Your task to perform on an android device: check battery use Image 0: 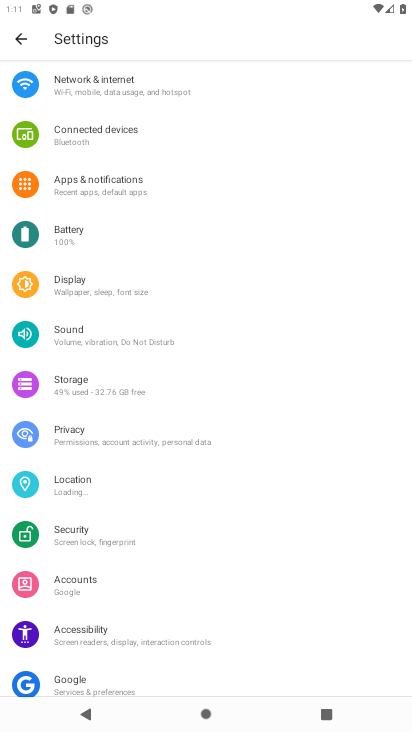
Step 0: press home button
Your task to perform on an android device: check battery use Image 1: 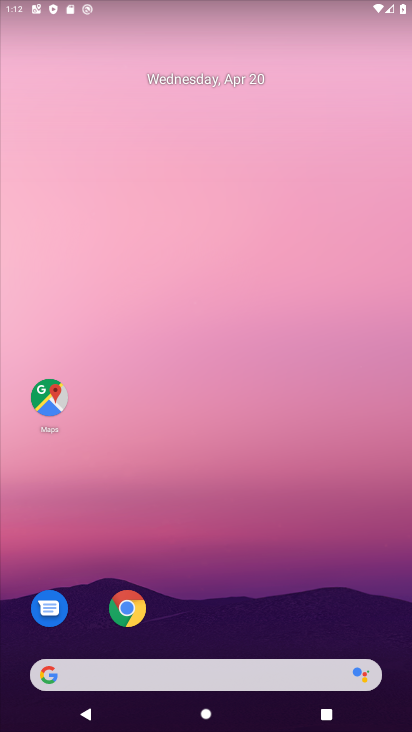
Step 1: drag from (212, 719) to (213, 140)
Your task to perform on an android device: check battery use Image 2: 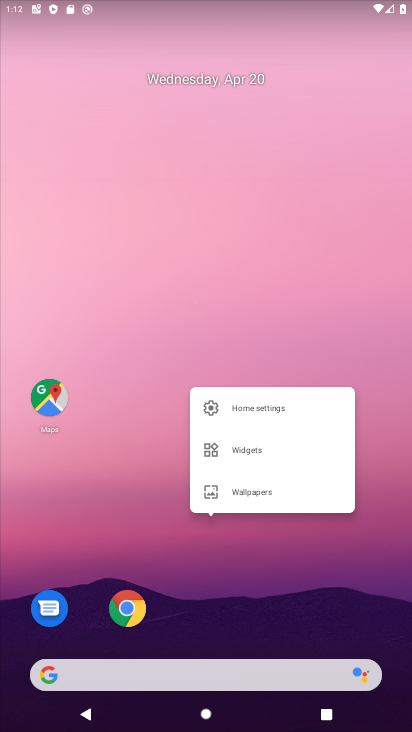
Step 2: click (199, 318)
Your task to perform on an android device: check battery use Image 3: 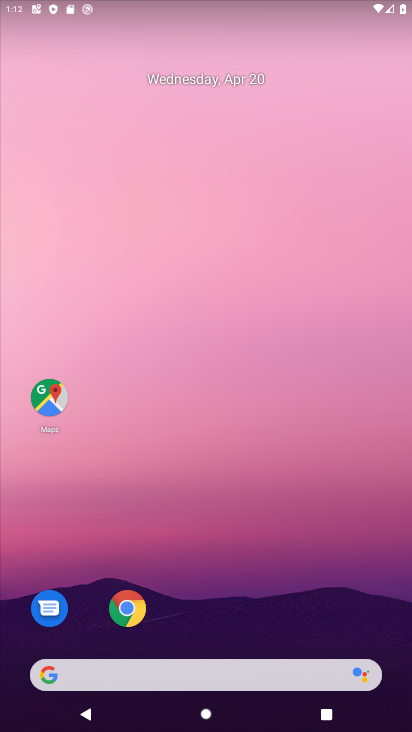
Step 3: drag from (212, 706) to (200, 52)
Your task to perform on an android device: check battery use Image 4: 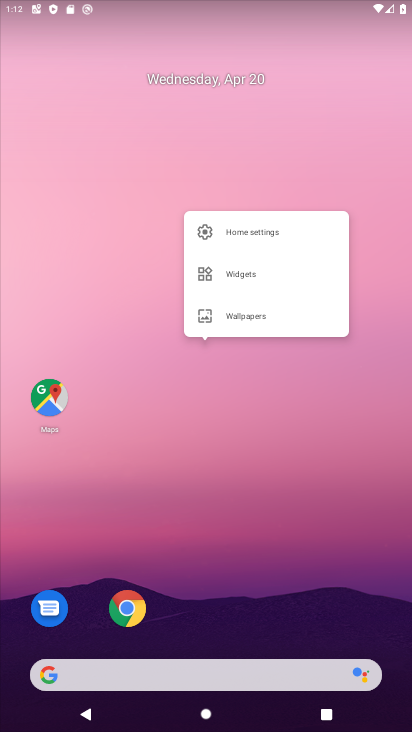
Step 4: click (224, 396)
Your task to perform on an android device: check battery use Image 5: 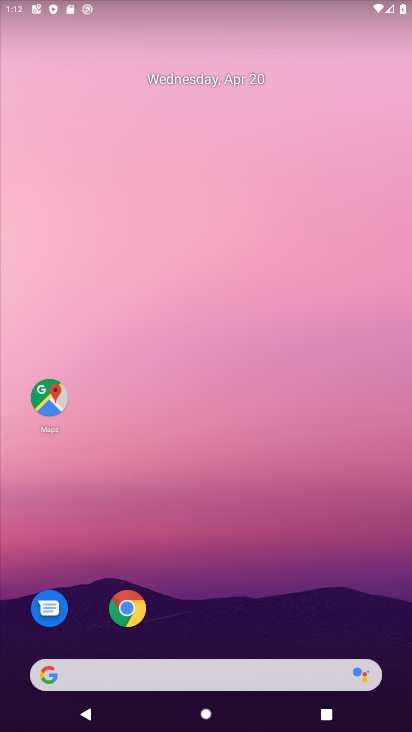
Step 5: drag from (212, 726) to (180, 66)
Your task to perform on an android device: check battery use Image 6: 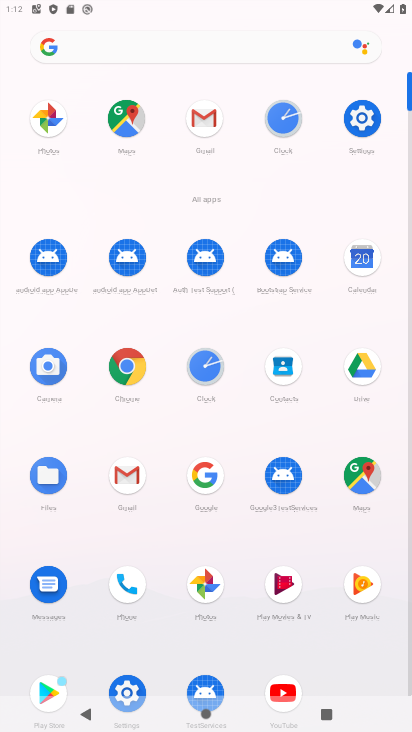
Step 6: click (365, 115)
Your task to perform on an android device: check battery use Image 7: 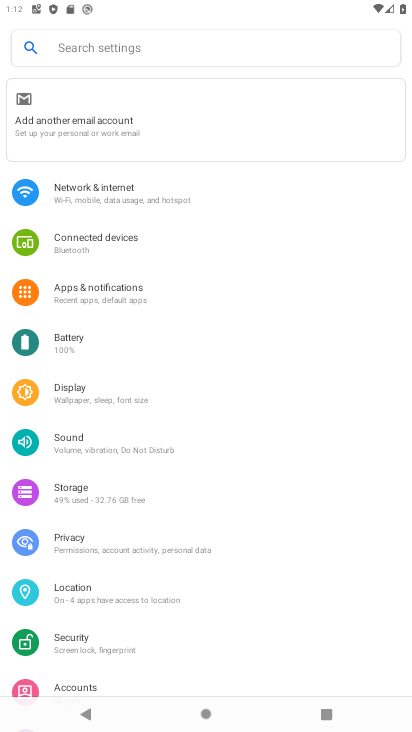
Step 7: click (65, 339)
Your task to perform on an android device: check battery use Image 8: 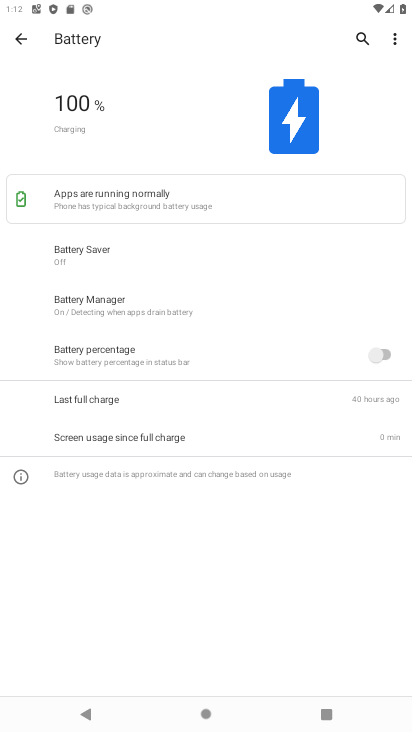
Step 8: click (395, 41)
Your task to perform on an android device: check battery use Image 9: 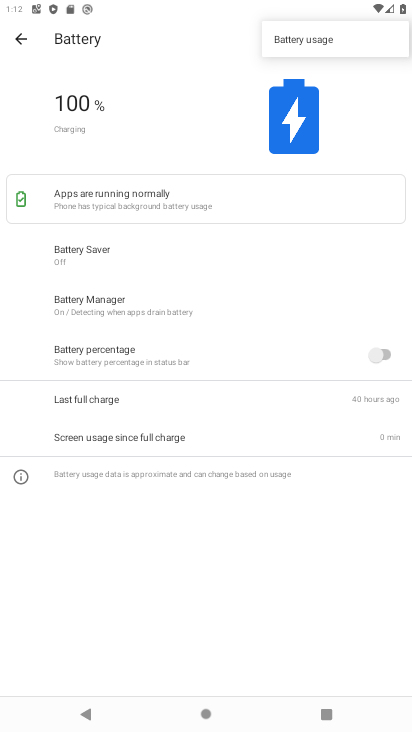
Step 9: click (298, 38)
Your task to perform on an android device: check battery use Image 10: 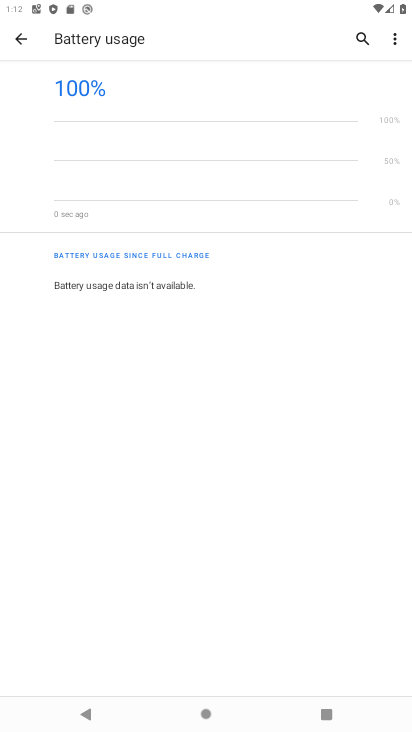
Step 10: task complete